Your task to perform on an android device: Search for vegetarian restaurants on Maps Image 0: 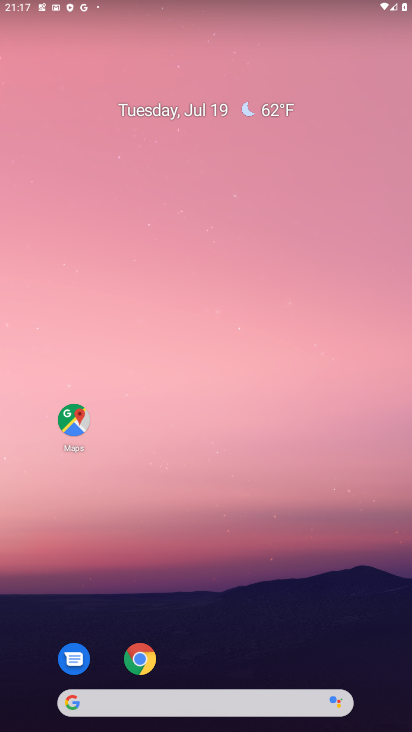
Step 0: press home button
Your task to perform on an android device: Search for vegetarian restaurants on Maps Image 1: 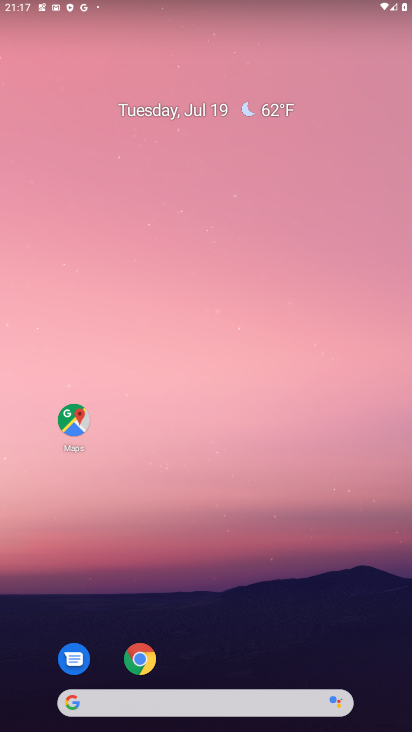
Step 1: drag from (268, 644) to (270, 562)
Your task to perform on an android device: Search for vegetarian restaurants on Maps Image 2: 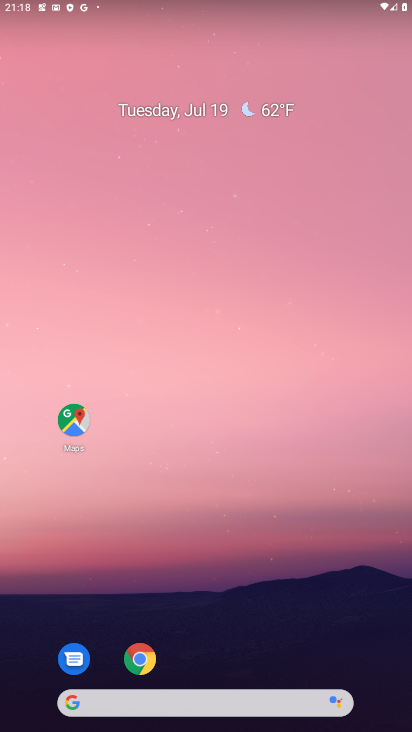
Step 2: drag from (300, 619) to (287, 60)
Your task to perform on an android device: Search for vegetarian restaurants on Maps Image 3: 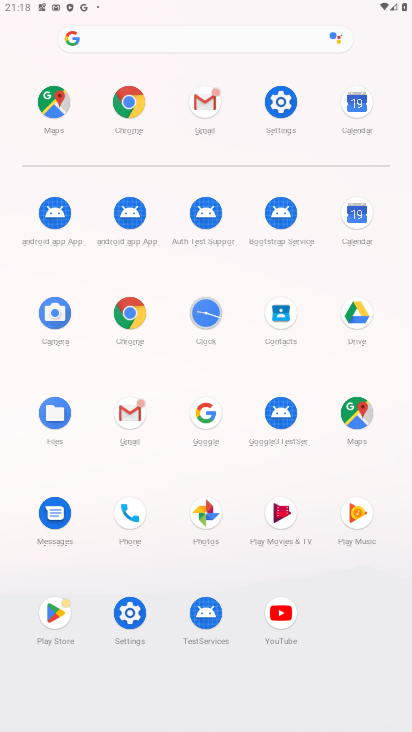
Step 3: click (373, 436)
Your task to perform on an android device: Search for vegetarian restaurants on Maps Image 4: 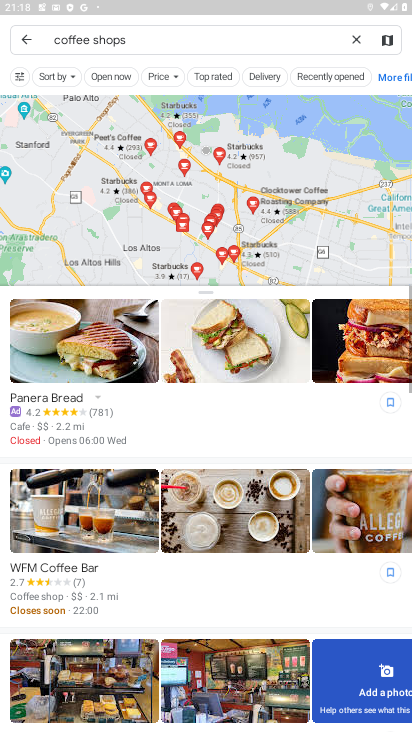
Step 4: click (350, 41)
Your task to perform on an android device: Search for vegetarian restaurants on Maps Image 5: 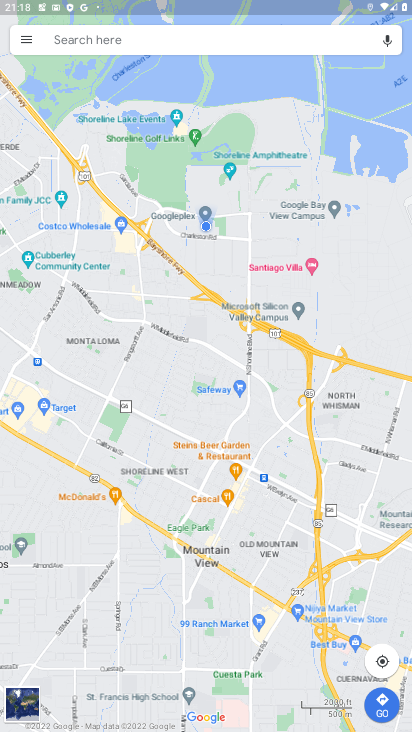
Step 5: click (151, 43)
Your task to perform on an android device: Search for vegetarian restaurants on Maps Image 6: 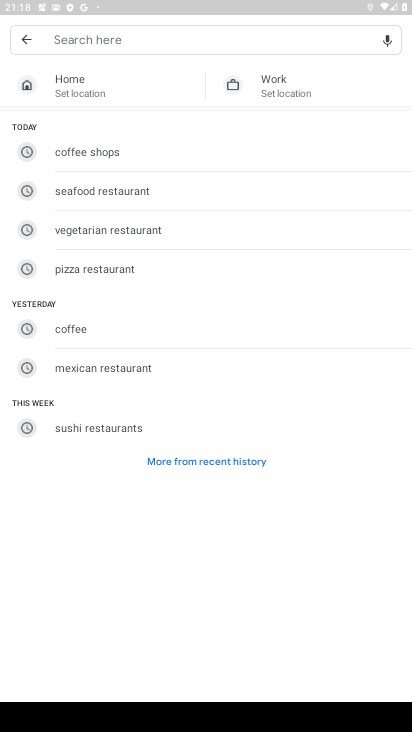
Step 6: type " vegetarian restaurants"
Your task to perform on an android device: Search for vegetarian restaurants on Maps Image 7: 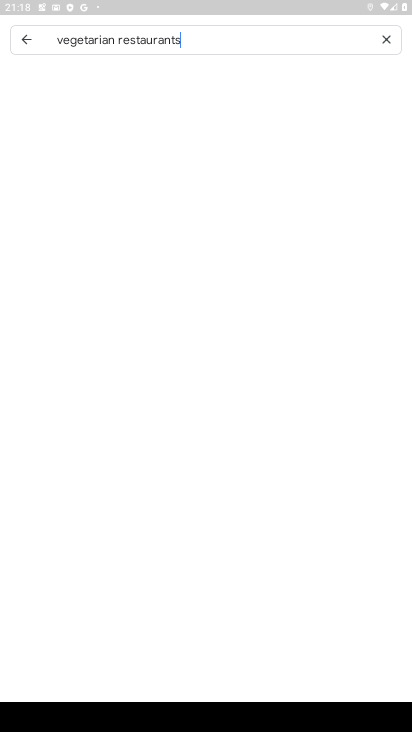
Step 7: type ""
Your task to perform on an android device: Search for vegetarian restaurants on Maps Image 8: 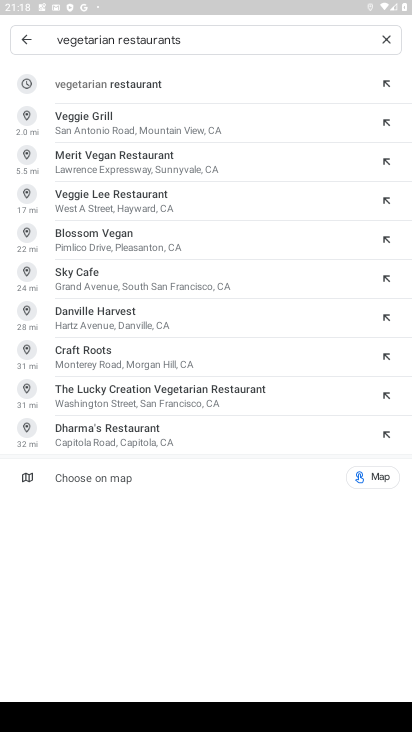
Step 8: click (131, 79)
Your task to perform on an android device: Search for vegetarian restaurants on Maps Image 9: 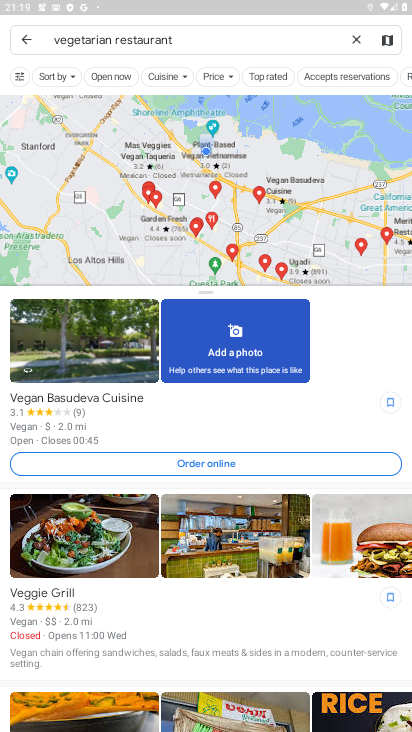
Step 9: task complete